Your task to perform on an android device: Open calendar and show me the fourth week of next month Image 0: 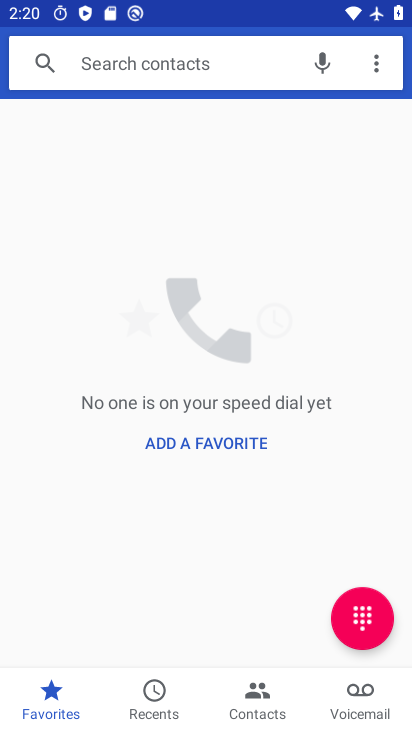
Step 0: press home button
Your task to perform on an android device: Open calendar and show me the fourth week of next month Image 1: 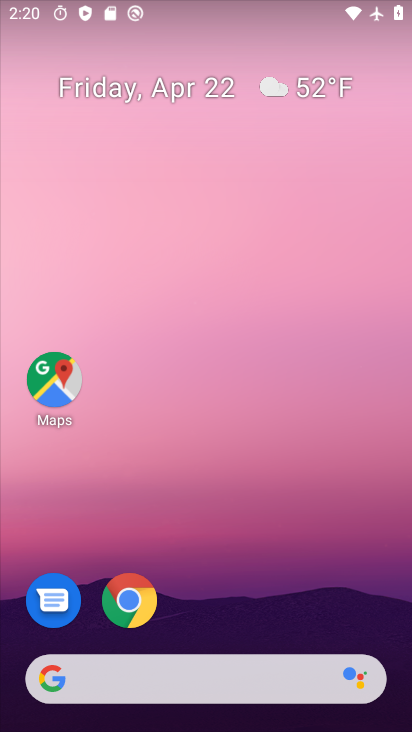
Step 1: drag from (211, 718) to (189, 113)
Your task to perform on an android device: Open calendar and show me the fourth week of next month Image 2: 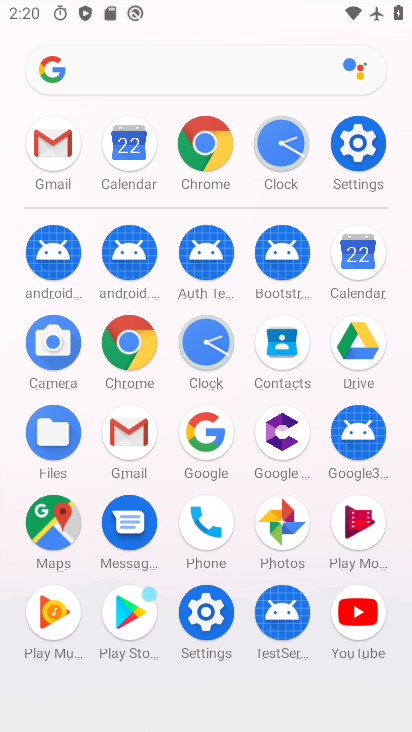
Step 2: click (358, 260)
Your task to perform on an android device: Open calendar and show me the fourth week of next month Image 3: 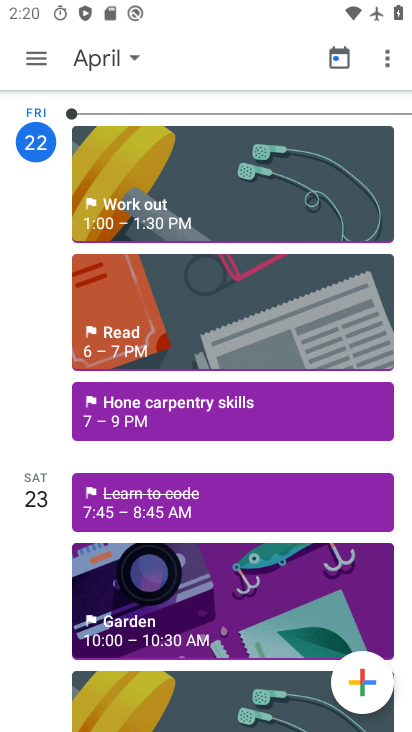
Step 3: click (87, 51)
Your task to perform on an android device: Open calendar and show me the fourth week of next month Image 4: 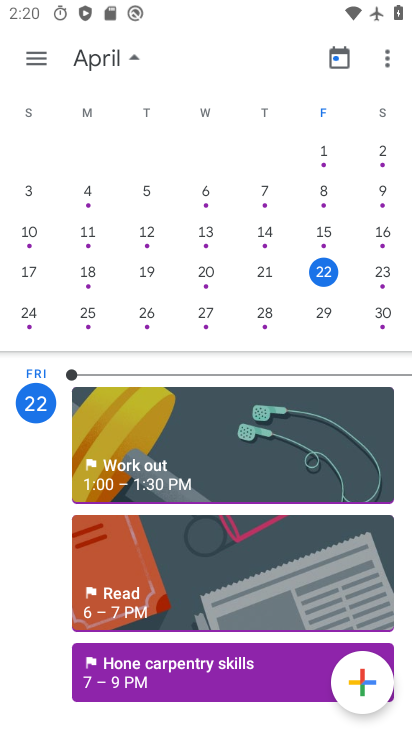
Step 4: drag from (365, 262) to (27, 355)
Your task to perform on an android device: Open calendar and show me the fourth week of next month Image 5: 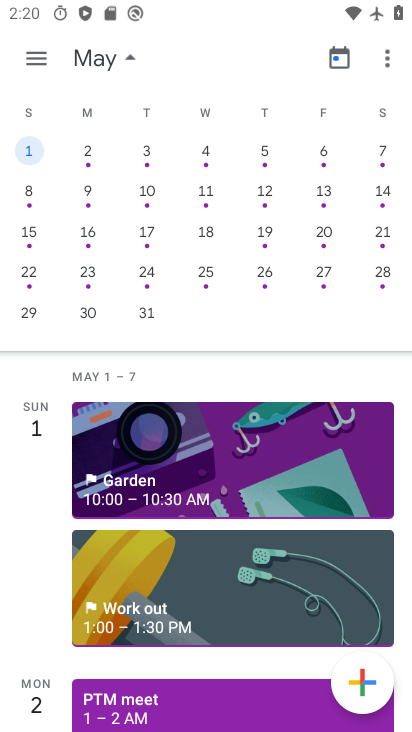
Step 5: click (89, 266)
Your task to perform on an android device: Open calendar and show me the fourth week of next month Image 6: 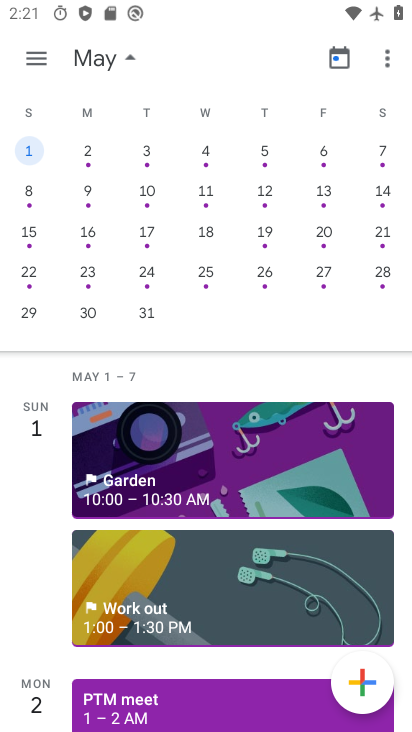
Step 6: click (86, 273)
Your task to perform on an android device: Open calendar and show me the fourth week of next month Image 7: 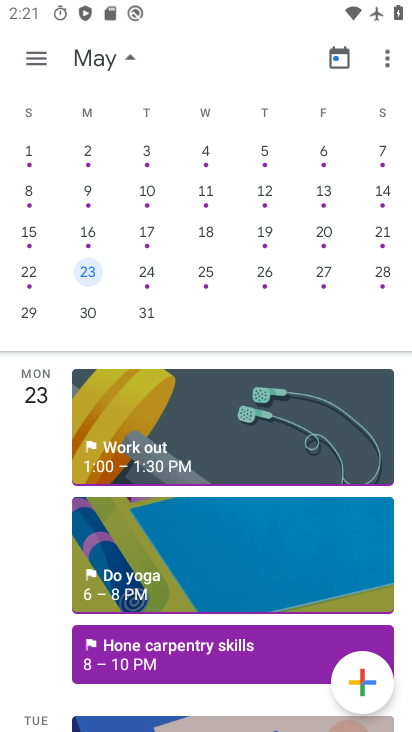
Step 7: task complete